Your task to perform on an android device: check data usage Image 0: 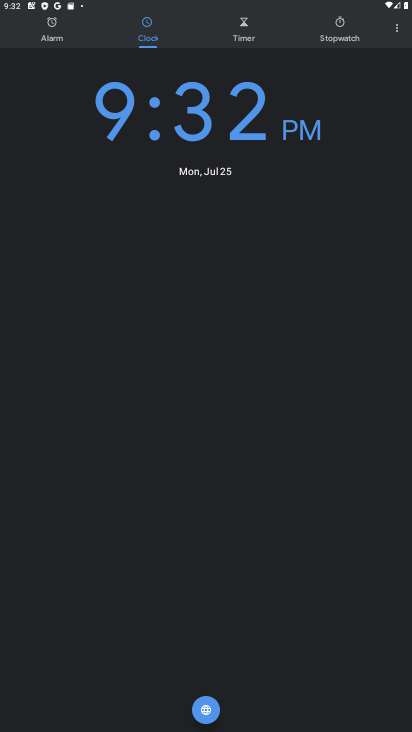
Step 0: task complete